Your task to perform on an android device: turn off sleep mode Image 0: 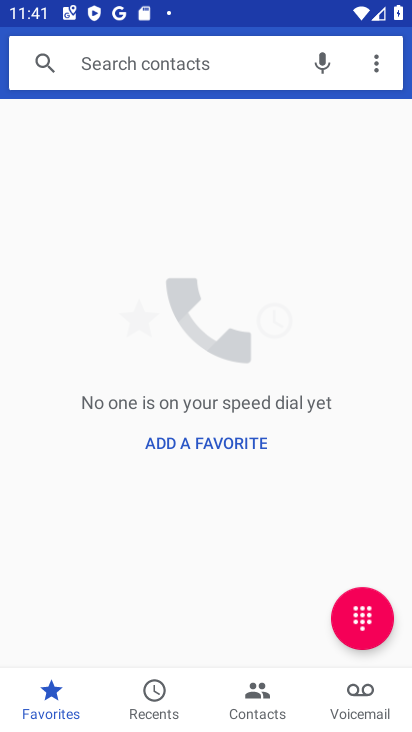
Step 0: press home button
Your task to perform on an android device: turn off sleep mode Image 1: 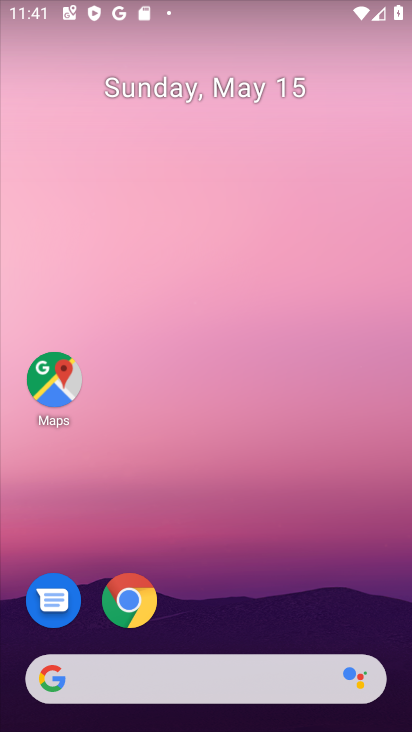
Step 1: drag from (192, 658) to (207, 222)
Your task to perform on an android device: turn off sleep mode Image 2: 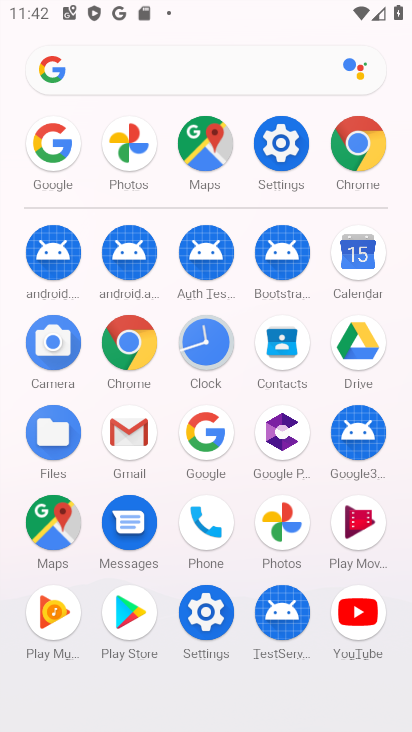
Step 2: click (205, 629)
Your task to perform on an android device: turn off sleep mode Image 3: 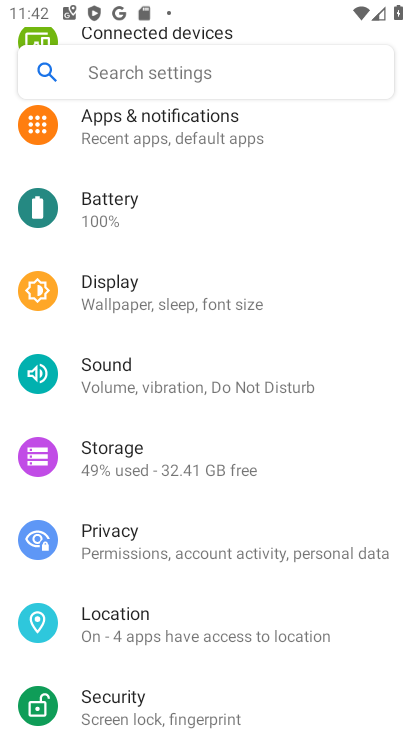
Step 3: click (155, 312)
Your task to perform on an android device: turn off sleep mode Image 4: 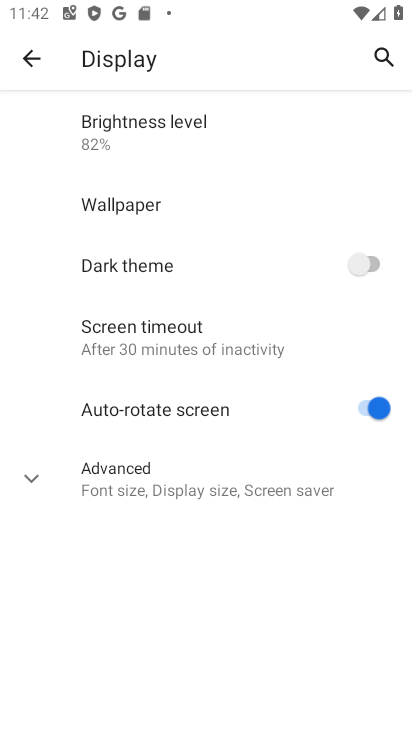
Step 4: click (114, 498)
Your task to perform on an android device: turn off sleep mode Image 5: 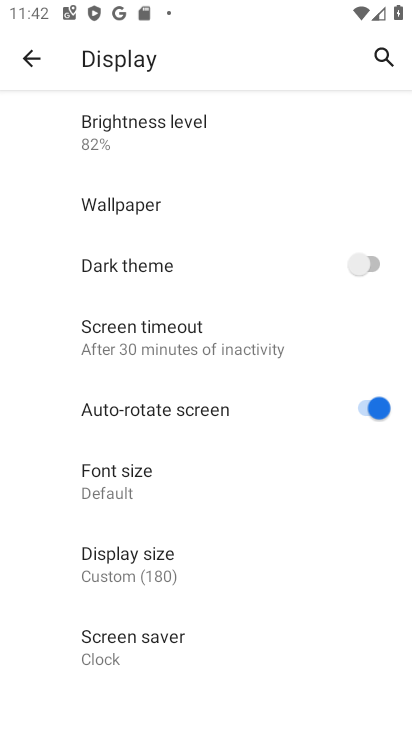
Step 5: task complete